Your task to perform on an android device: change the clock display to show seconds Image 0: 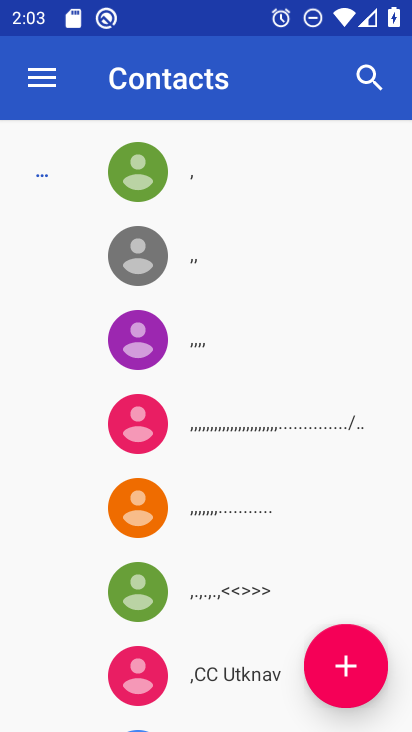
Step 0: press home button
Your task to perform on an android device: change the clock display to show seconds Image 1: 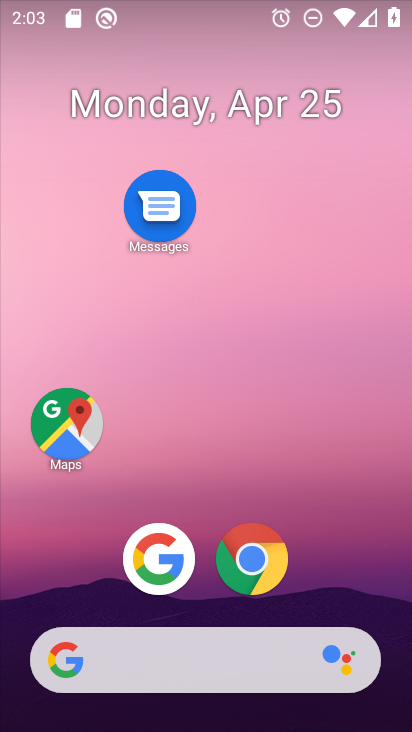
Step 1: drag from (336, 546) to (367, 150)
Your task to perform on an android device: change the clock display to show seconds Image 2: 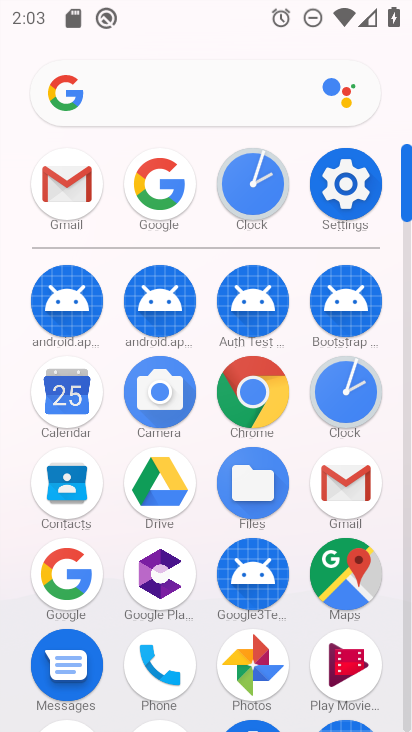
Step 2: click (343, 383)
Your task to perform on an android device: change the clock display to show seconds Image 3: 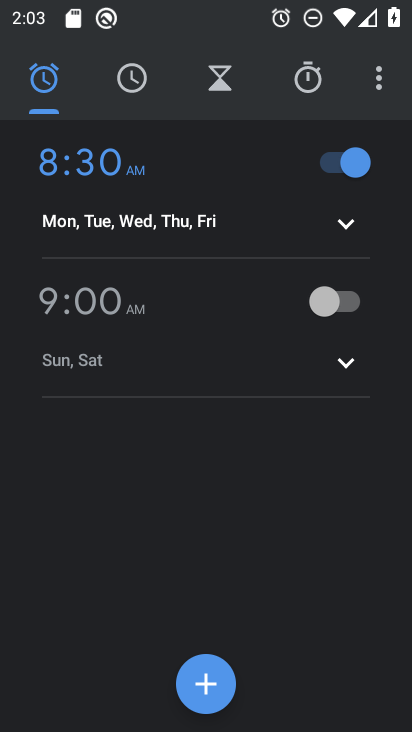
Step 3: click (377, 72)
Your task to perform on an android device: change the clock display to show seconds Image 4: 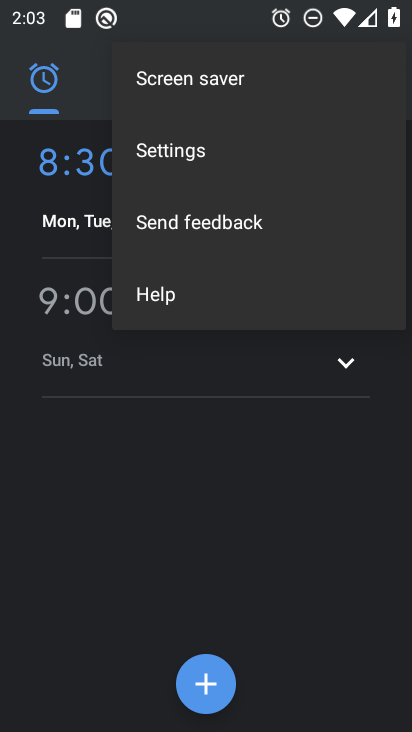
Step 4: click (181, 150)
Your task to perform on an android device: change the clock display to show seconds Image 5: 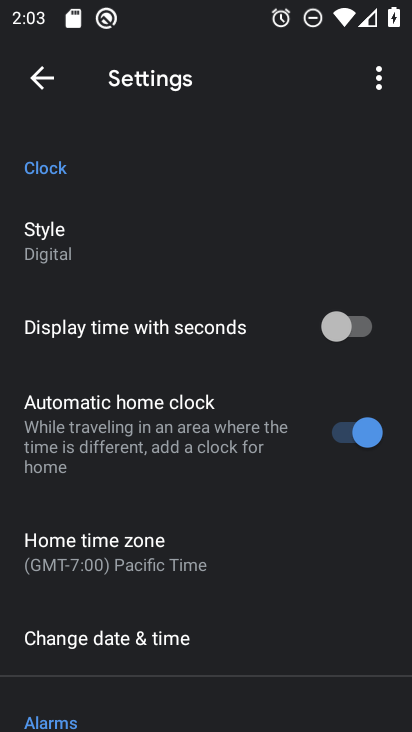
Step 5: click (342, 326)
Your task to perform on an android device: change the clock display to show seconds Image 6: 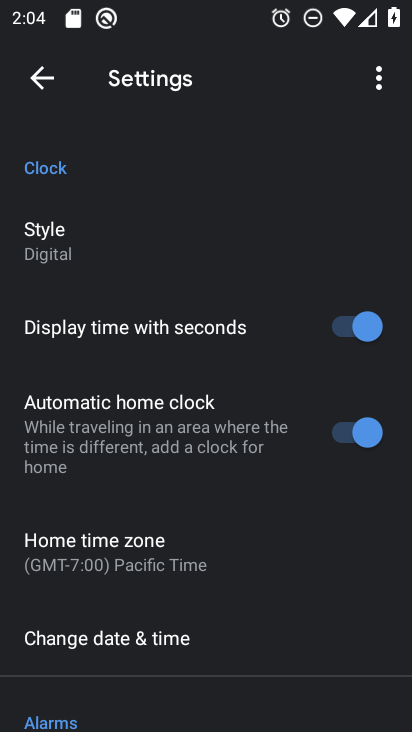
Step 6: task complete